Your task to perform on an android device: Open Yahoo.com Image 0: 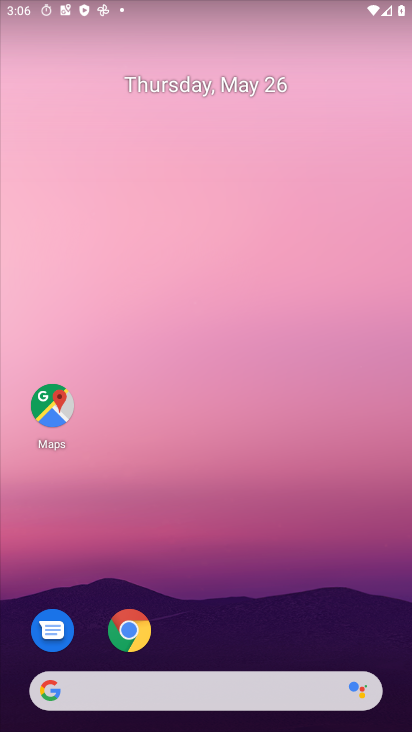
Step 0: click (125, 626)
Your task to perform on an android device: Open Yahoo.com Image 1: 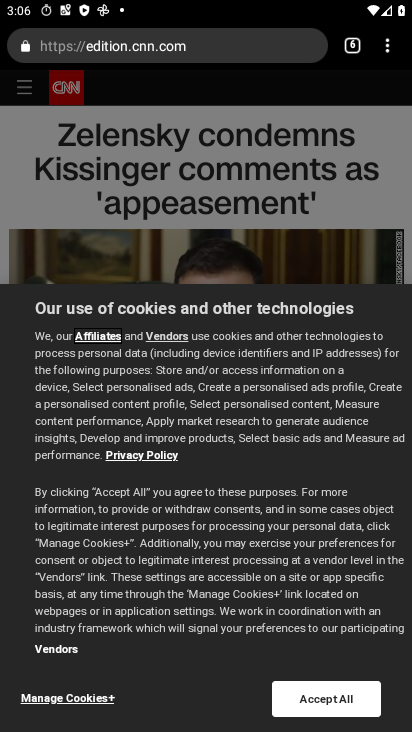
Step 1: click (362, 36)
Your task to perform on an android device: Open Yahoo.com Image 2: 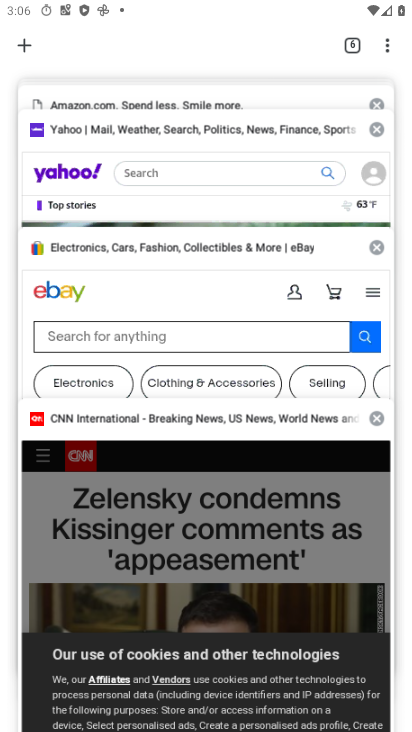
Step 2: click (247, 169)
Your task to perform on an android device: Open Yahoo.com Image 3: 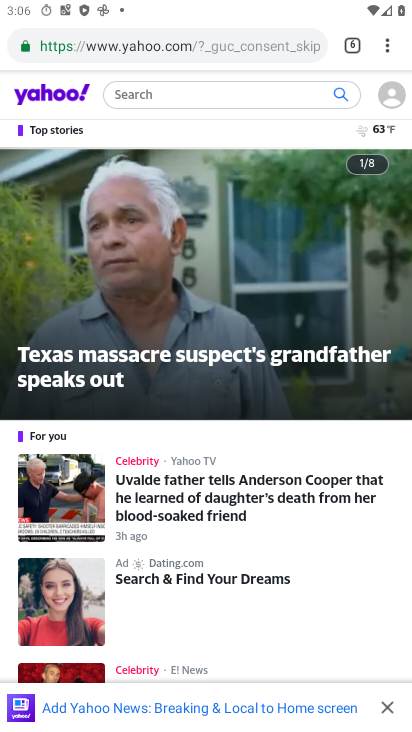
Step 3: task complete